Your task to perform on an android device: Go to eBay Image 0: 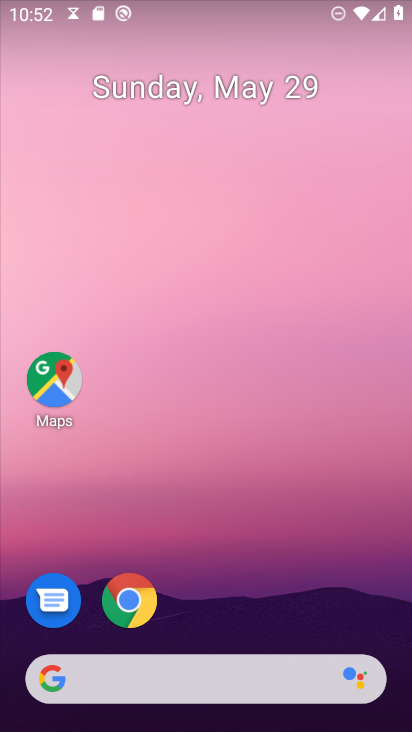
Step 0: drag from (227, 679) to (210, 81)
Your task to perform on an android device: Go to eBay Image 1: 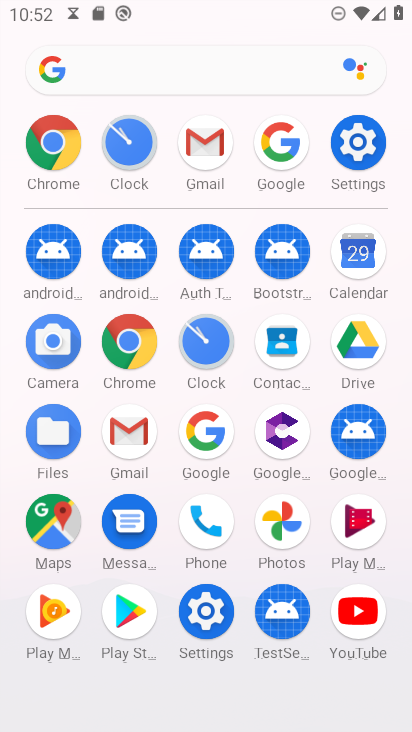
Step 1: click (55, 142)
Your task to perform on an android device: Go to eBay Image 2: 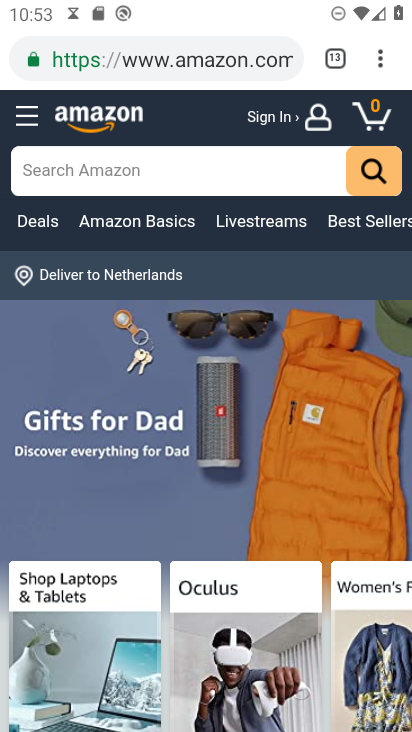
Step 2: click (380, 67)
Your task to perform on an android device: Go to eBay Image 3: 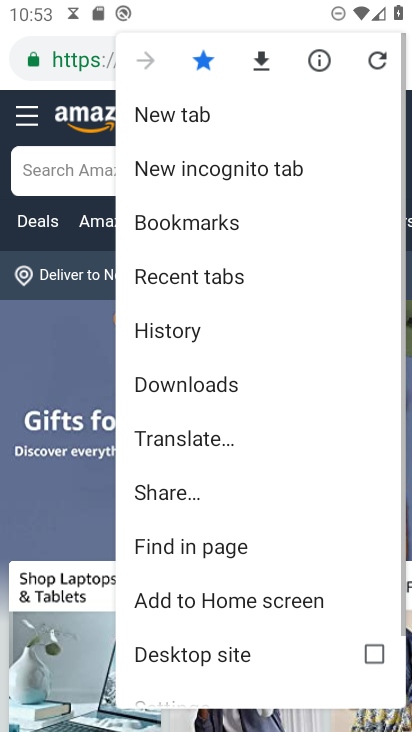
Step 3: click (185, 116)
Your task to perform on an android device: Go to eBay Image 4: 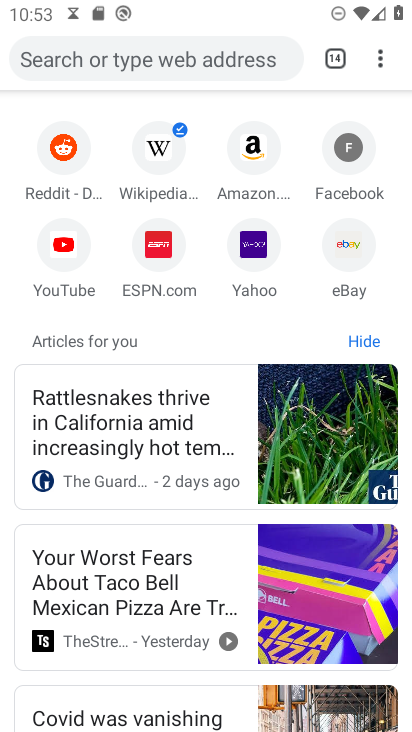
Step 4: click (348, 235)
Your task to perform on an android device: Go to eBay Image 5: 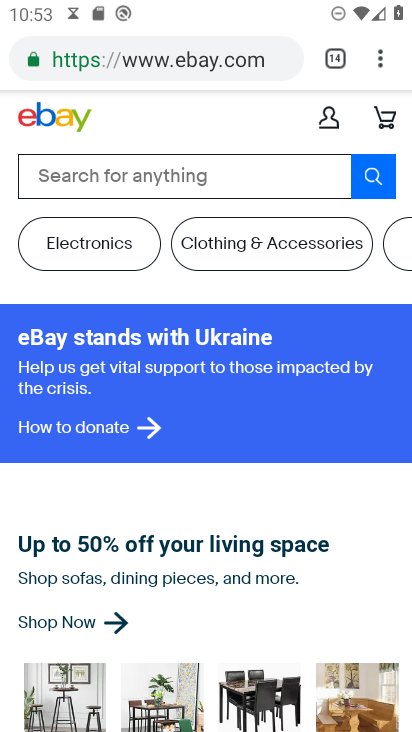
Step 5: task complete